Your task to perform on an android device: When is my next appointment? Image 0: 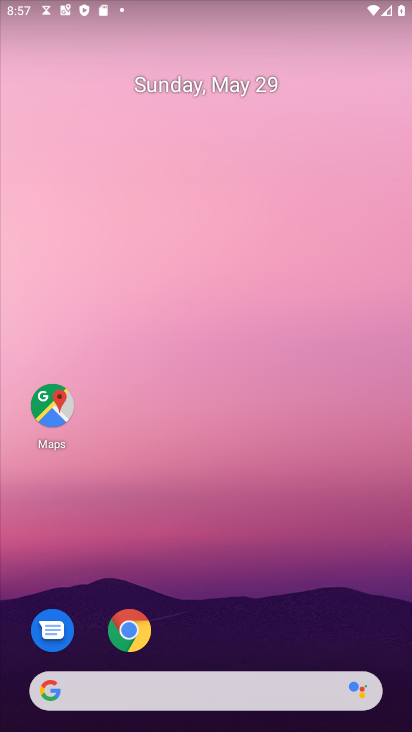
Step 0: click (231, 89)
Your task to perform on an android device: When is my next appointment? Image 1: 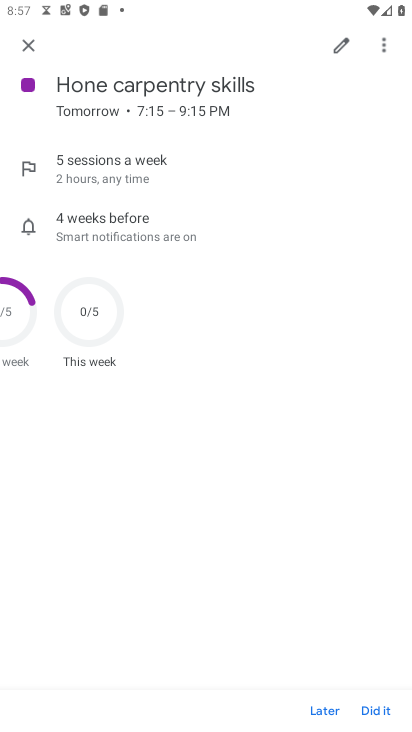
Step 1: click (28, 48)
Your task to perform on an android device: When is my next appointment? Image 2: 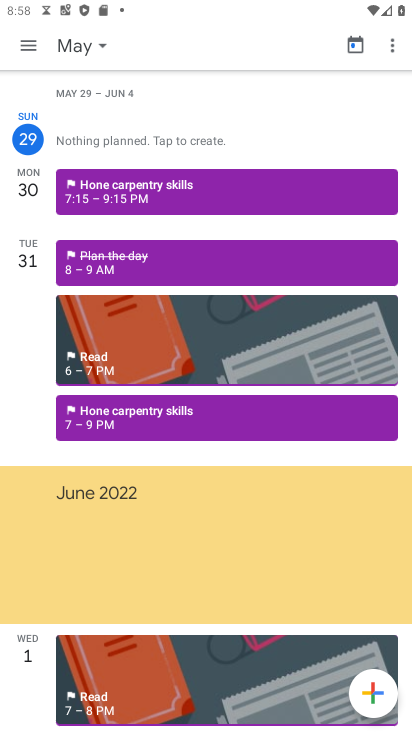
Step 2: click (124, 198)
Your task to perform on an android device: When is my next appointment? Image 3: 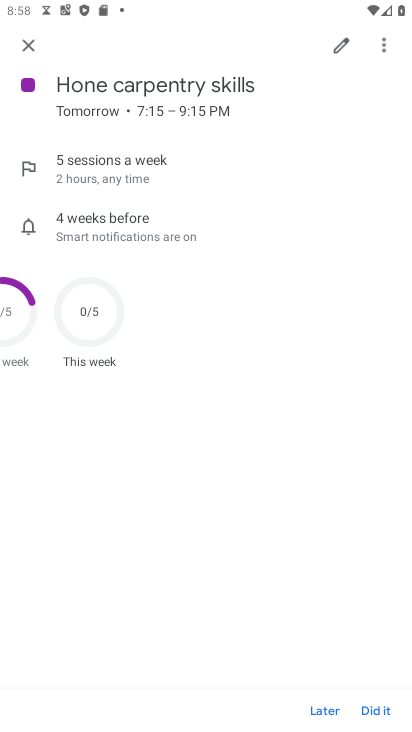
Step 3: task complete